Your task to perform on an android device: delete location history Image 0: 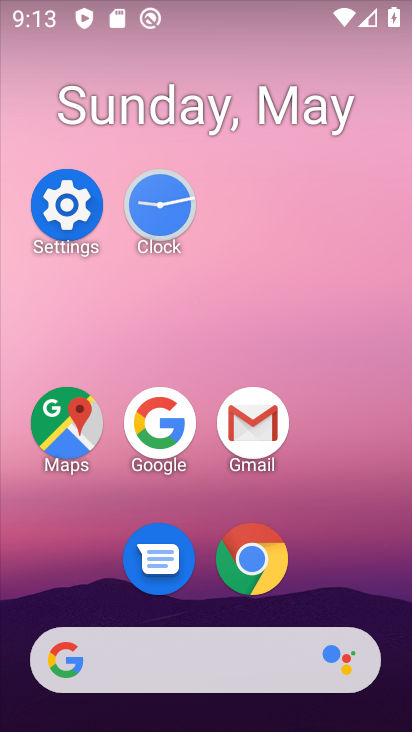
Step 0: click (62, 199)
Your task to perform on an android device: delete location history Image 1: 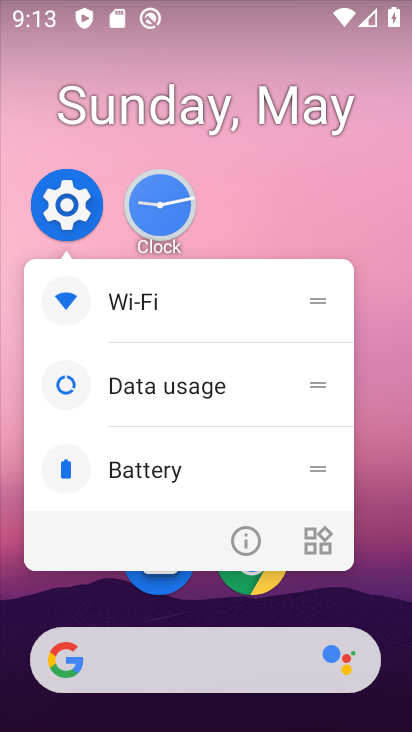
Step 1: click (85, 214)
Your task to perform on an android device: delete location history Image 2: 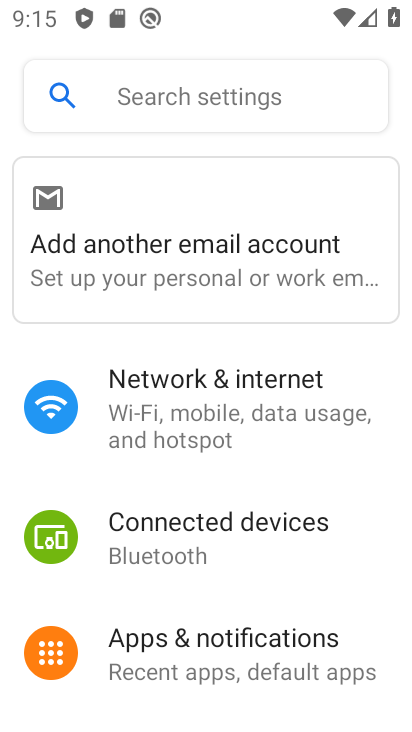
Step 2: drag from (281, 545) to (367, 181)
Your task to perform on an android device: delete location history Image 3: 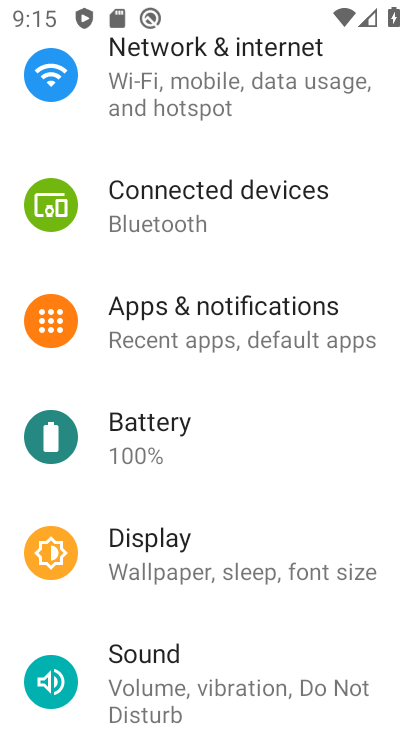
Step 3: drag from (300, 597) to (303, 127)
Your task to perform on an android device: delete location history Image 4: 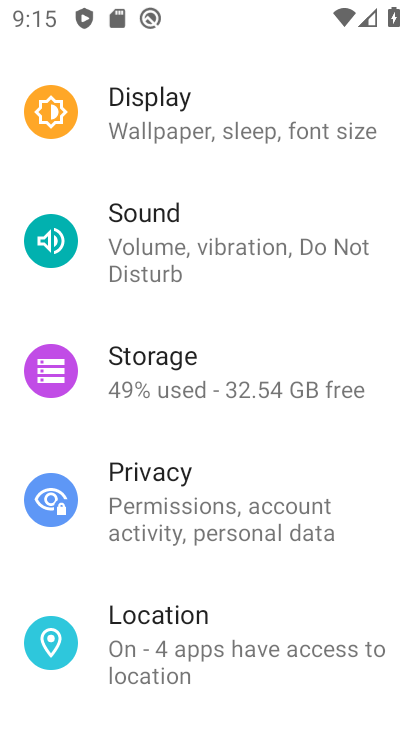
Step 4: drag from (280, 600) to (263, 161)
Your task to perform on an android device: delete location history Image 5: 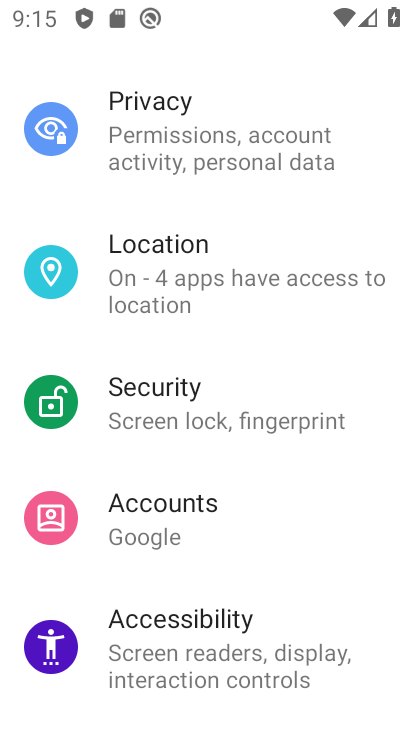
Step 5: drag from (254, 155) to (242, 554)
Your task to perform on an android device: delete location history Image 6: 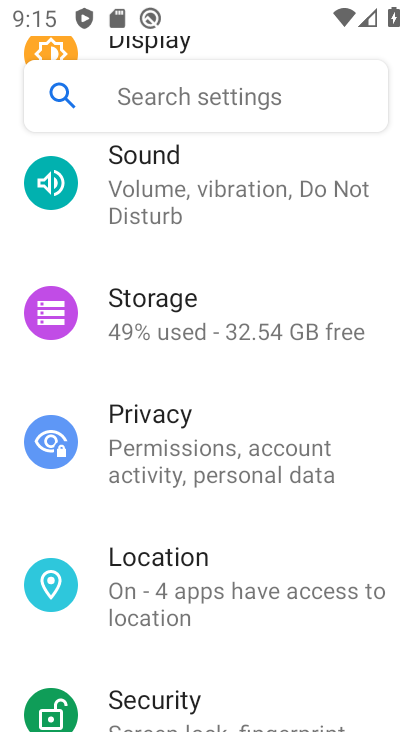
Step 6: drag from (223, 157) to (222, 607)
Your task to perform on an android device: delete location history Image 7: 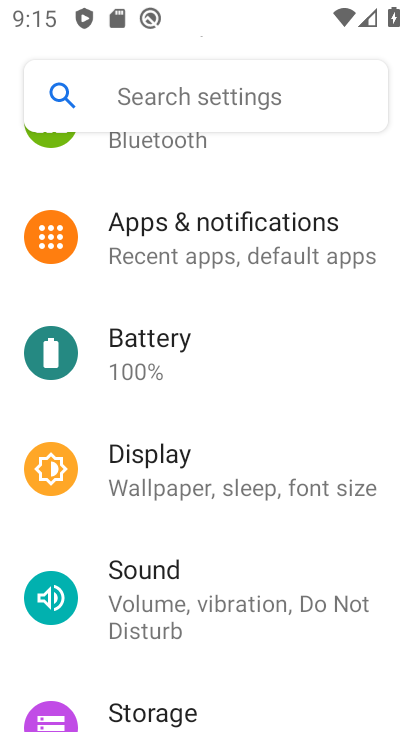
Step 7: drag from (221, 595) to (216, 235)
Your task to perform on an android device: delete location history Image 8: 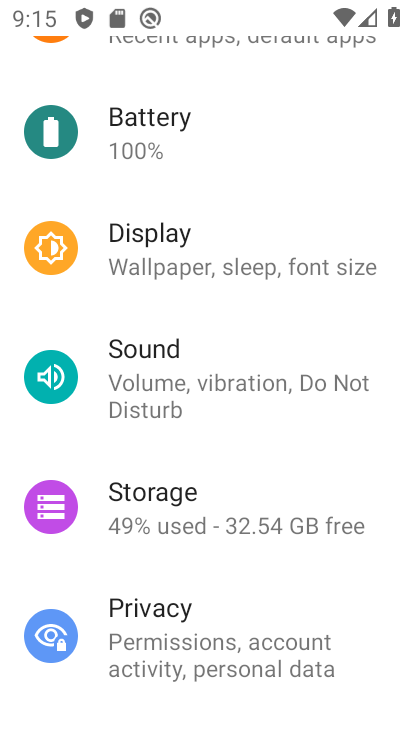
Step 8: drag from (258, 609) to (253, 227)
Your task to perform on an android device: delete location history Image 9: 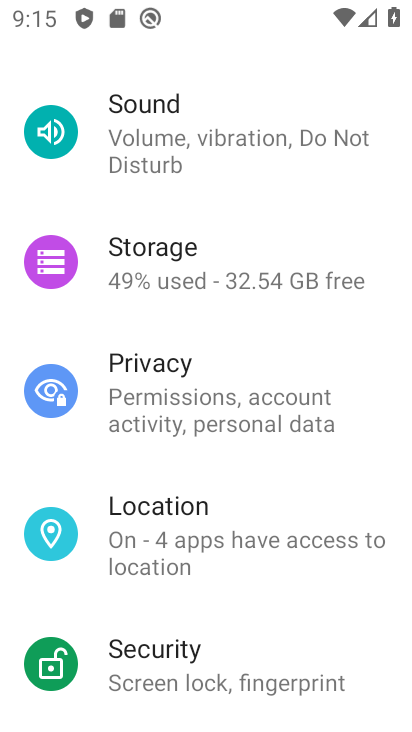
Step 9: click (251, 542)
Your task to perform on an android device: delete location history Image 10: 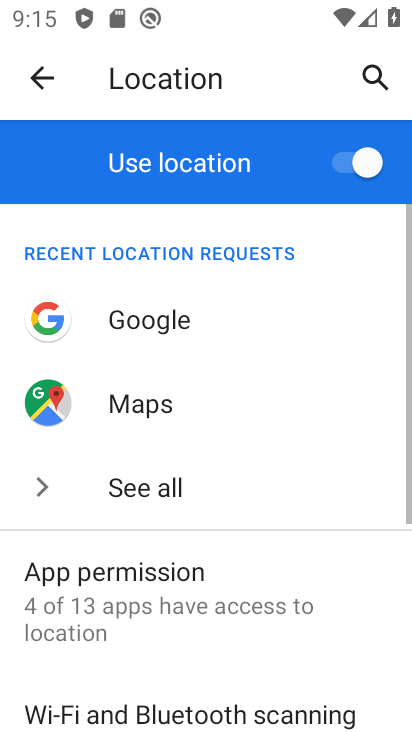
Step 10: drag from (261, 673) to (232, 382)
Your task to perform on an android device: delete location history Image 11: 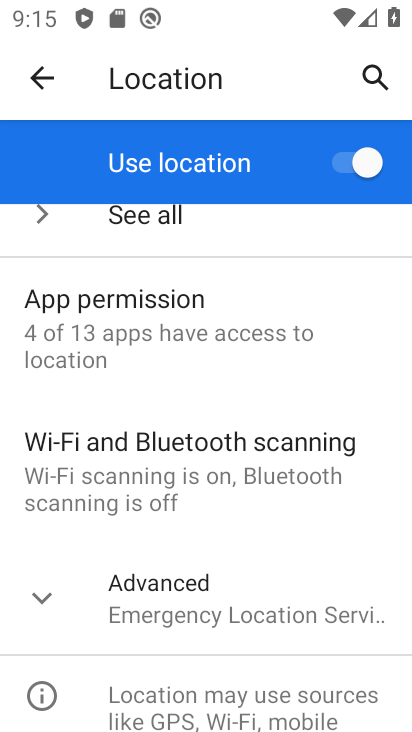
Step 11: click (228, 581)
Your task to perform on an android device: delete location history Image 12: 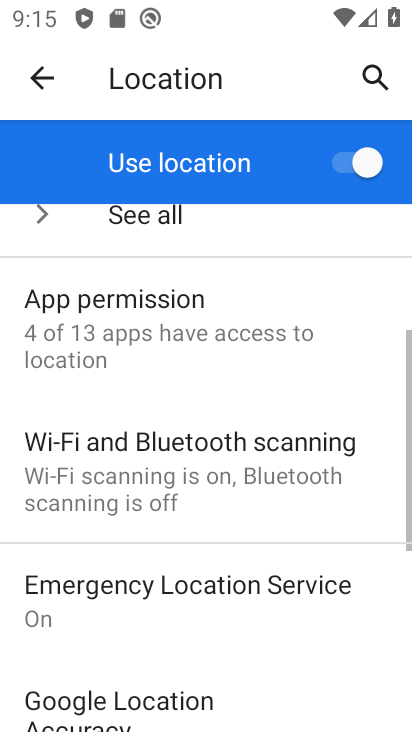
Step 12: drag from (209, 531) to (171, 329)
Your task to perform on an android device: delete location history Image 13: 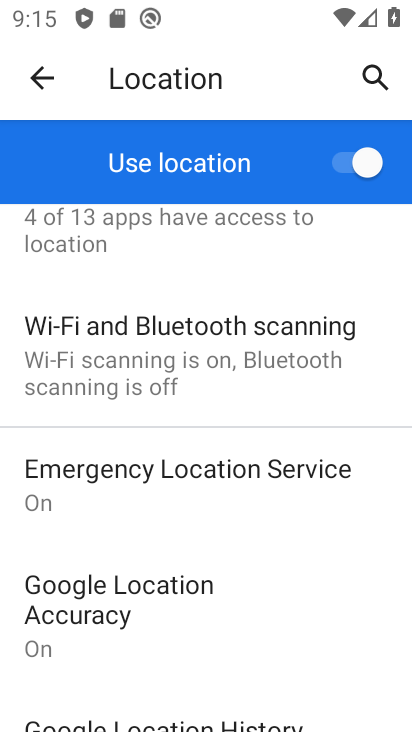
Step 13: drag from (211, 476) to (199, 292)
Your task to perform on an android device: delete location history Image 14: 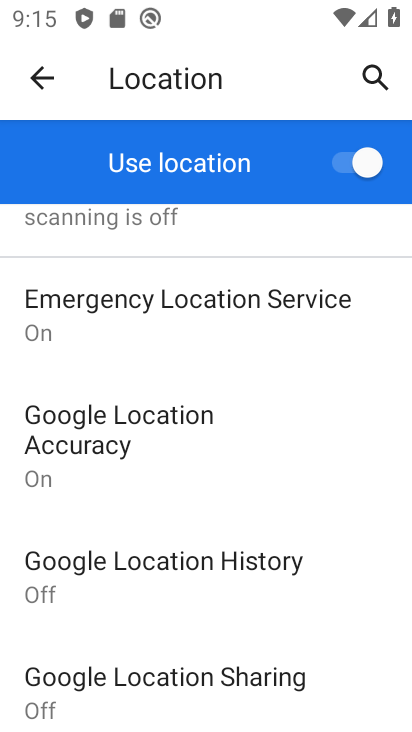
Step 14: click (236, 574)
Your task to perform on an android device: delete location history Image 15: 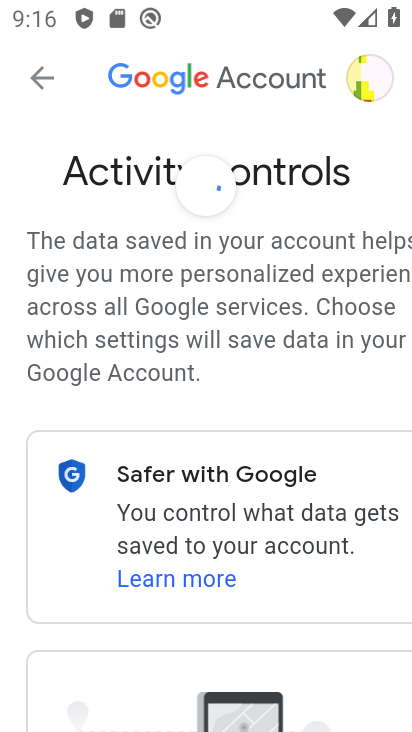
Step 15: drag from (219, 550) to (184, 332)
Your task to perform on an android device: delete location history Image 16: 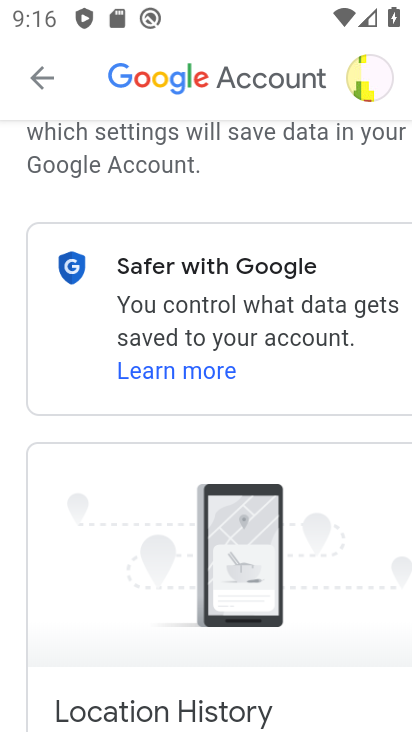
Step 16: drag from (296, 609) to (297, 231)
Your task to perform on an android device: delete location history Image 17: 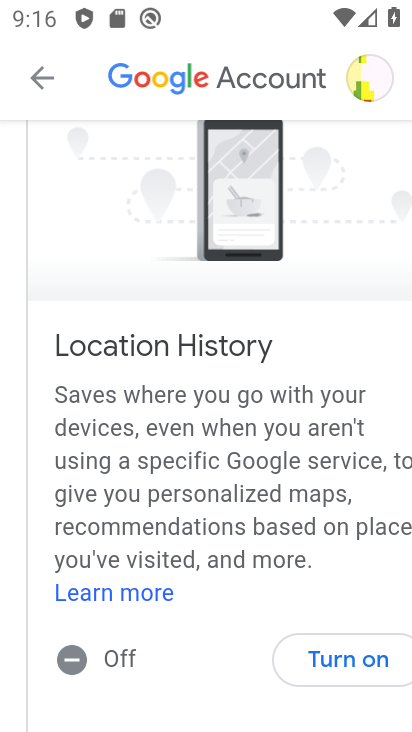
Step 17: drag from (356, 603) to (311, 286)
Your task to perform on an android device: delete location history Image 18: 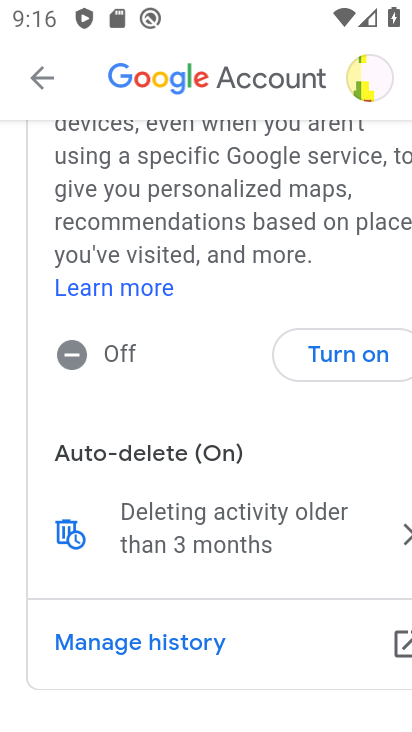
Step 18: click (276, 542)
Your task to perform on an android device: delete location history Image 19: 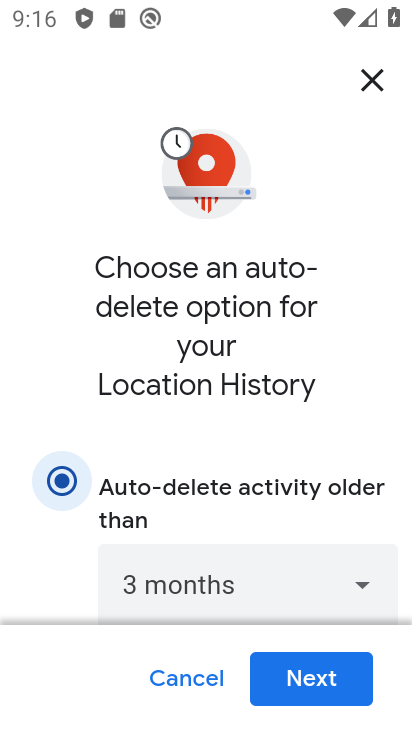
Step 19: click (290, 671)
Your task to perform on an android device: delete location history Image 20: 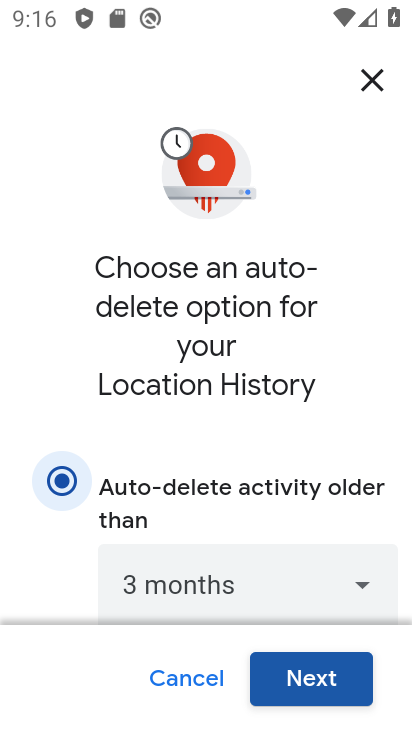
Step 20: click (290, 672)
Your task to perform on an android device: delete location history Image 21: 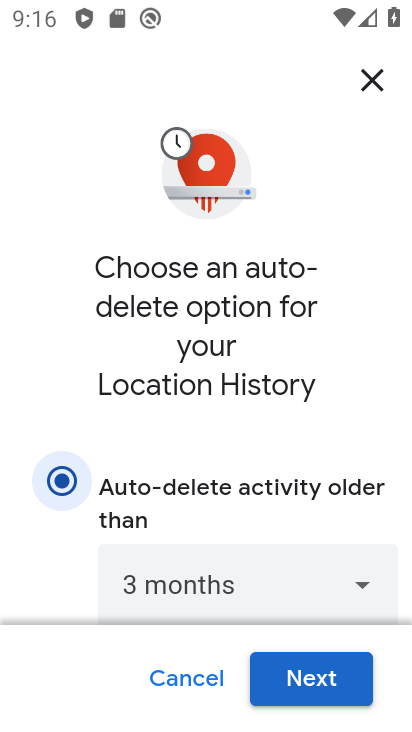
Step 21: click (320, 698)
Your task to perform on an android device: delete location history Image 22: 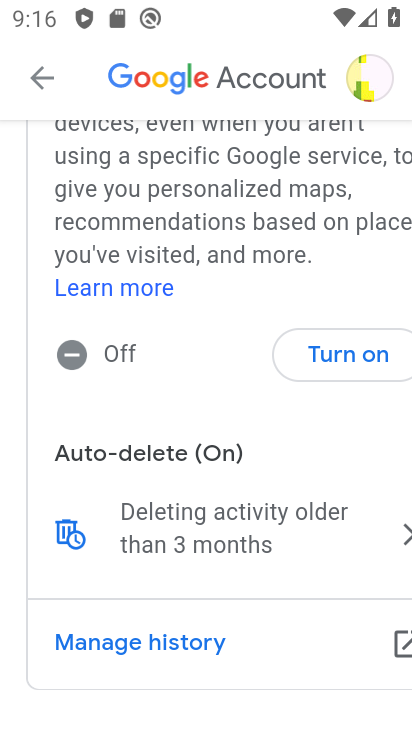
Step 22: click (317, 694)
Your task to perform on an android device: delete location history Image 23: 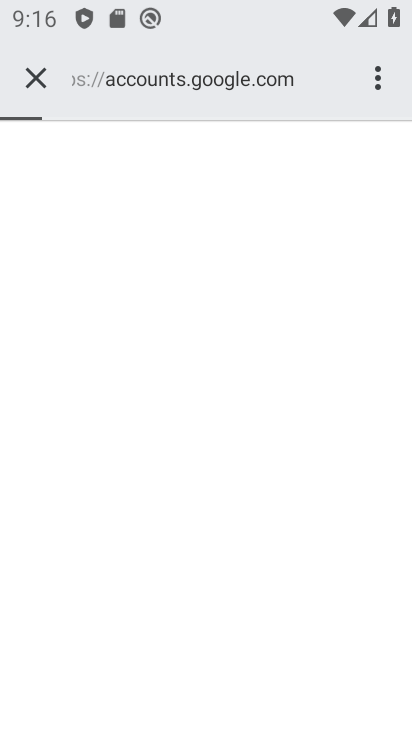
Step 23: task complete